Your task to perform on an android device: find which apps use the phone's location Image 0: 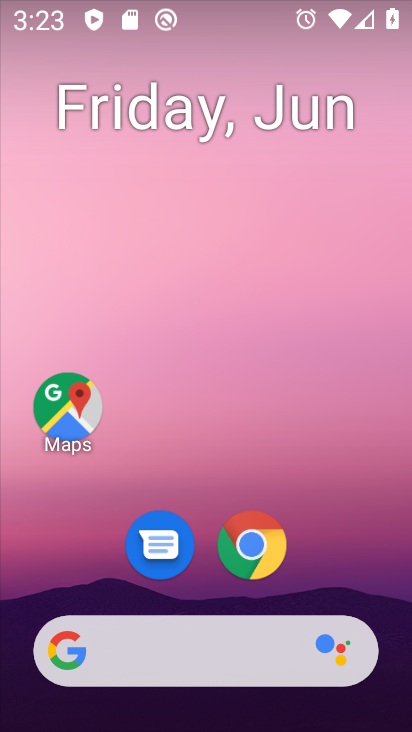
Step 0: drag from (326, 585) to (326, 42)
Your task to perform on an android device: find which apps use the phone's location Image 1: 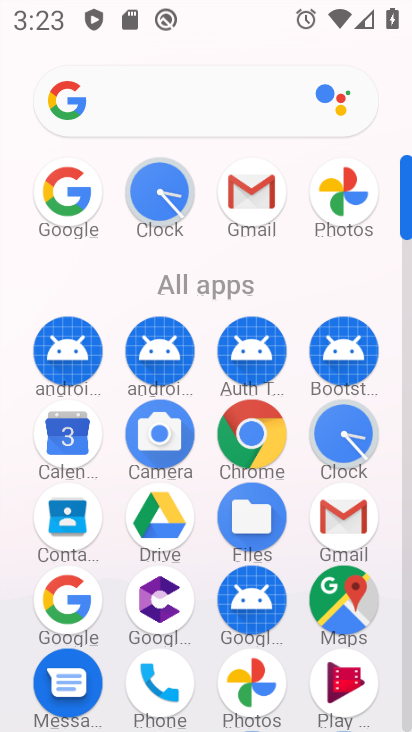
Step 1: drag from (127, 577) to (195, 242)
Your task to perform on an android device: find which apps use the phone's location Image 2: 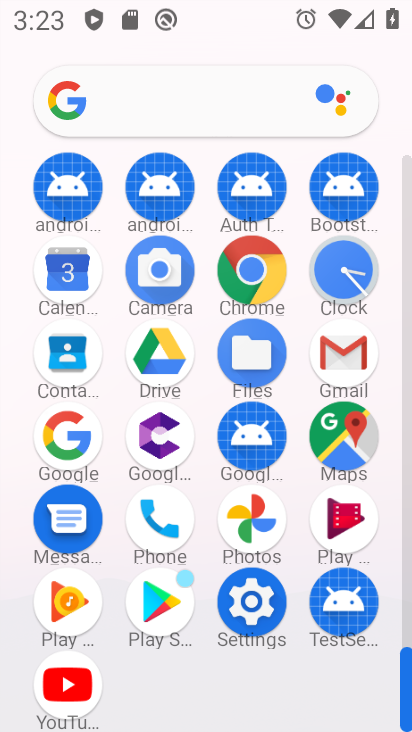
Step 2: click (246, 608)
Your task to perform on an android device: find which apps use the phone's location Image 3: 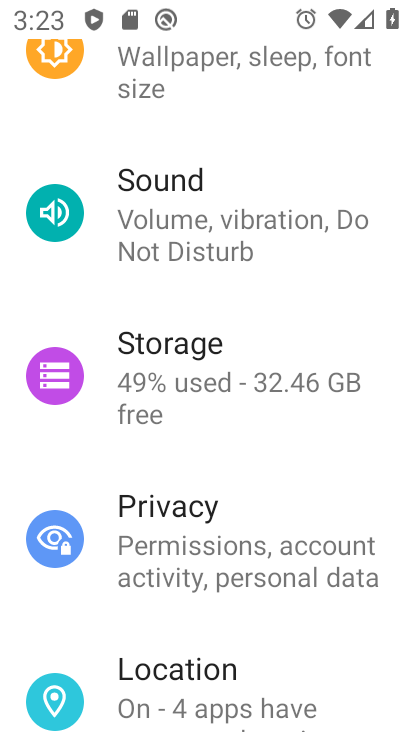
Step 3: click (176, 696)
Your task to perform on an android device: find which apps use the phone's location Image 4: 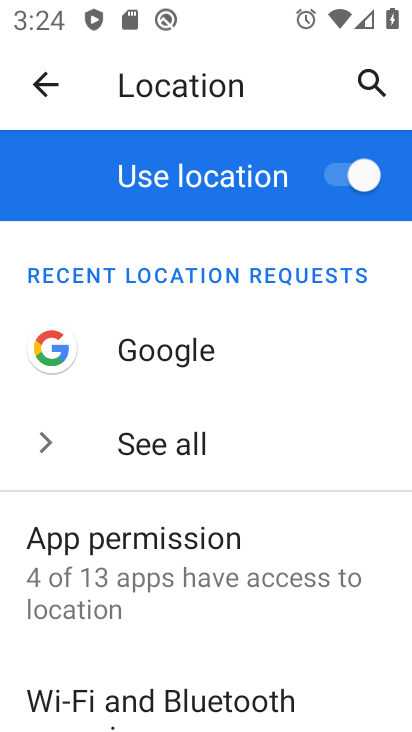
Step 4: drag from (233, 679) to (232, 190)
Your task to perform on an android device: find which apps use the phone's location Image 5: 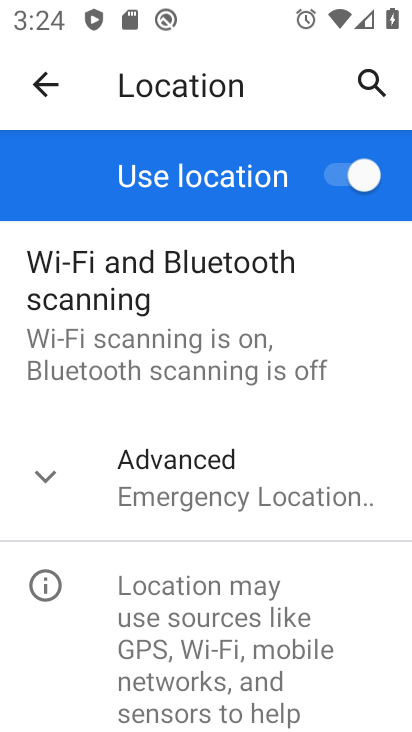
Step 5: click (169, 466)
Your task to perform on an android device: find which apps use the phone's location Image 6: 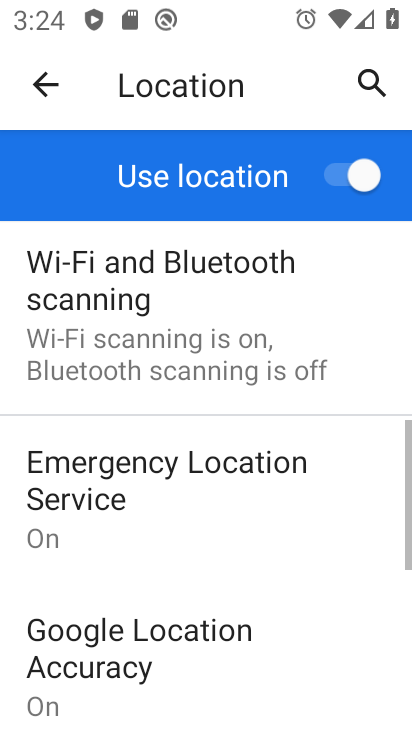
Step 6: drag from (192, 355) to (218, 646)
Your task to perform on an android device: find which apps use the phone's location Image 7: 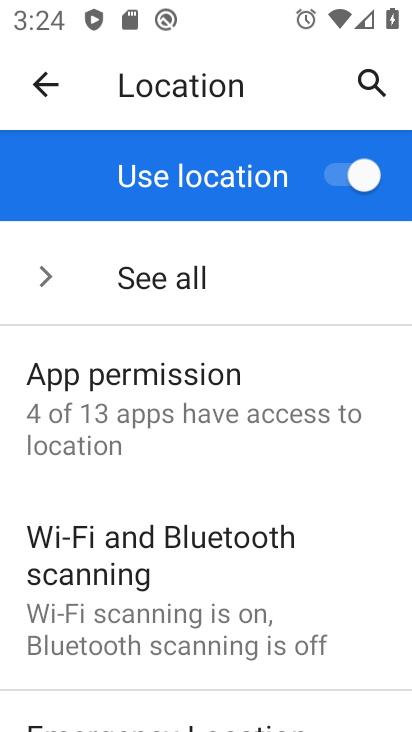
Step 7: click (126, 432)
Your task to perform on an android device: find which apps use the phone's location Image 8: 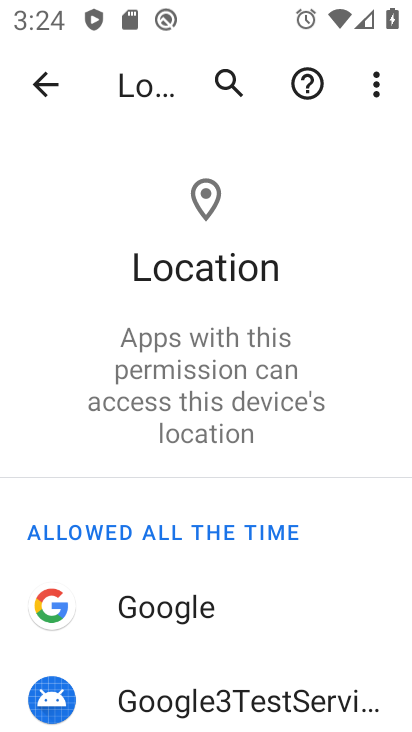
Step 8: task complete